Your task to perform on an android device: What's the weather? Image 0: 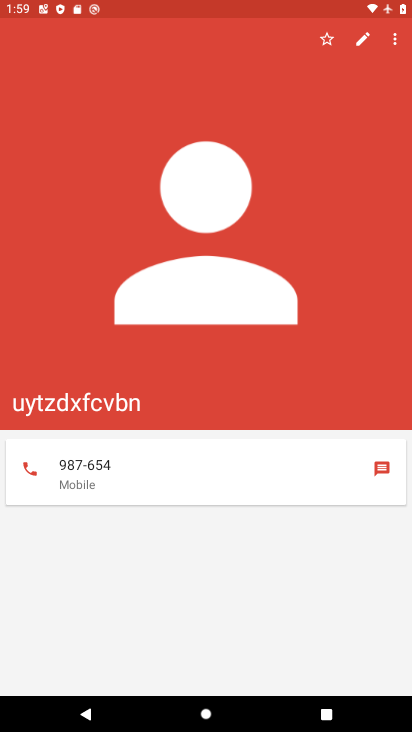
Step 0: press home button
Your task to perform on an android device: What's the weather? Image 1: 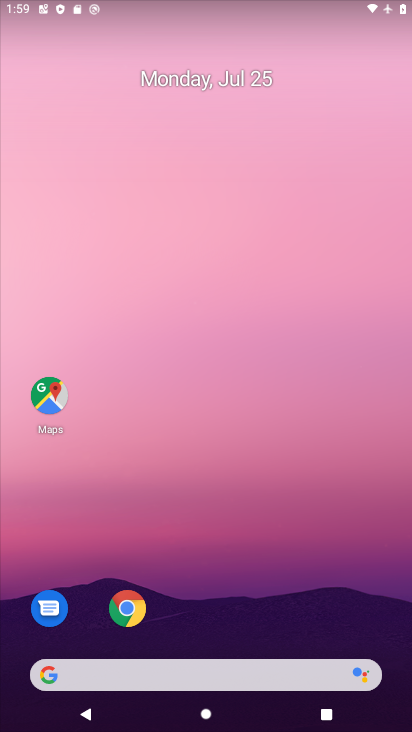
Step 1: drag from (279, 625) to (279, 217)
Your task to perform on an android device: What's the weather? Image 2: 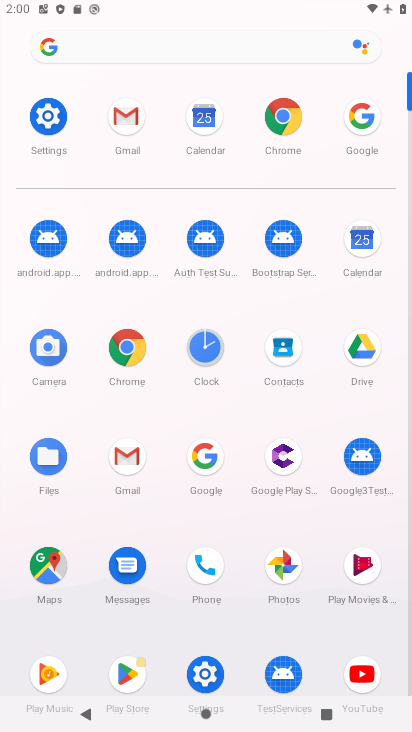
Step 2: click (203, 486)
Your task to perform on an android device: What's the weather? Image 3: 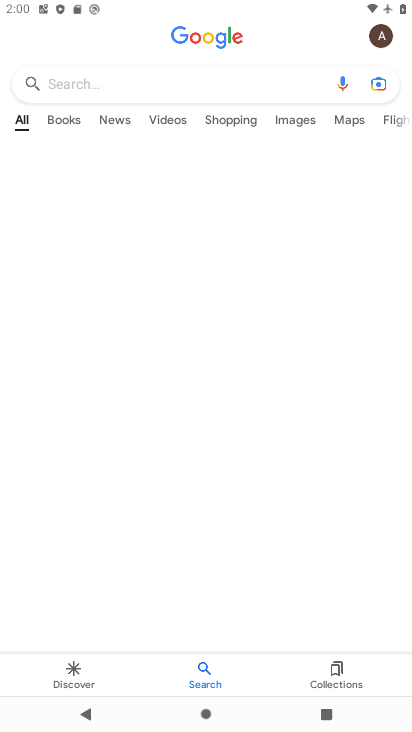
Step 3: click (193, 80)
Your task to perform on an android device: What's the weather? Image 4: 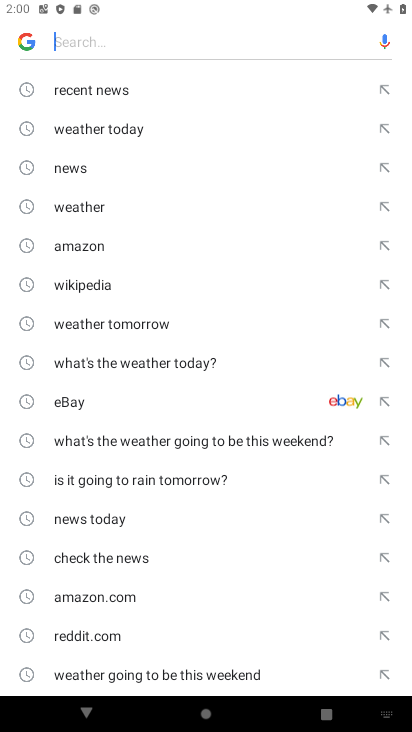
Step 4: click (71, 206)
Your task to perform on an android device: What's the weather? Image 5: 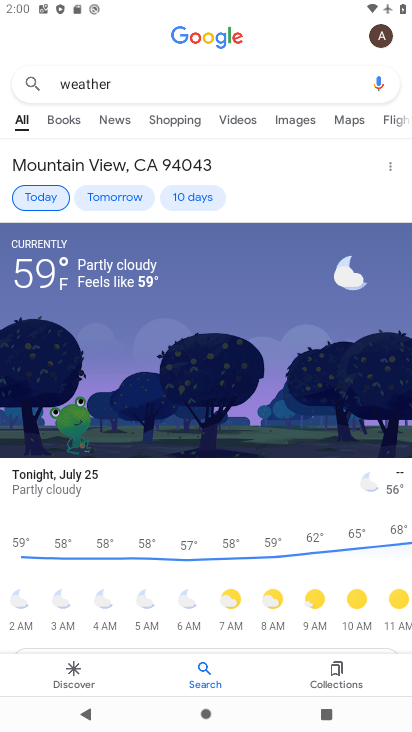
Step 5: task complete